Your task to perform on an android device: Check the weather Image 0: 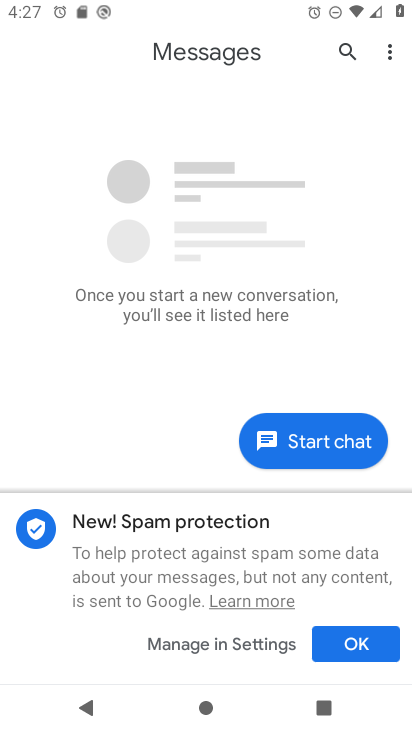
Step 0: press home button
Your task to perform on an android device: Check the weather Image 1: 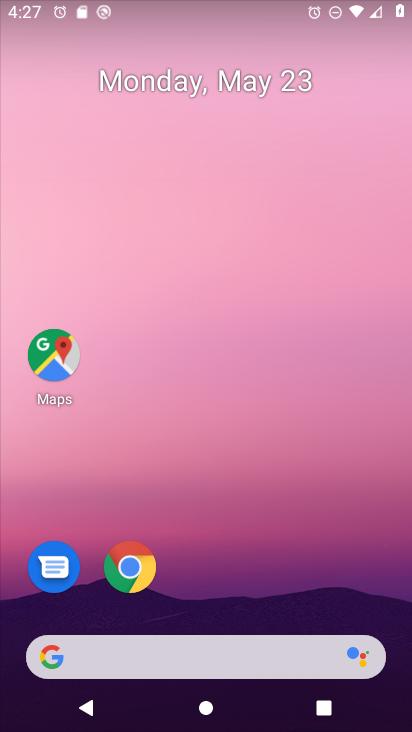
Step 1: click (207, 658)
Your task to perform on an android device: Check the weather Image 2: 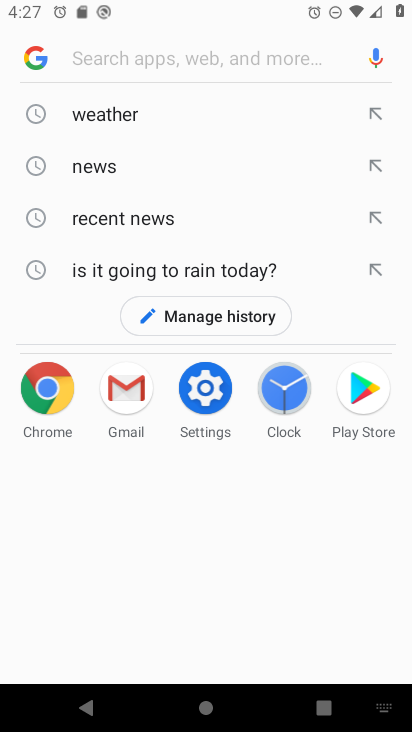
Step 2: click (106, 117)
Your task to perform on an android device: Check the weather Image 3: 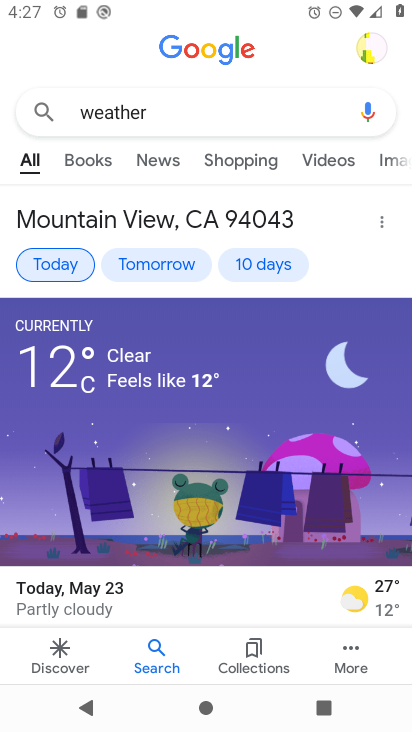
Step 3: task complete